Your task to perform on an android device: change the clock display to digital Image 0: 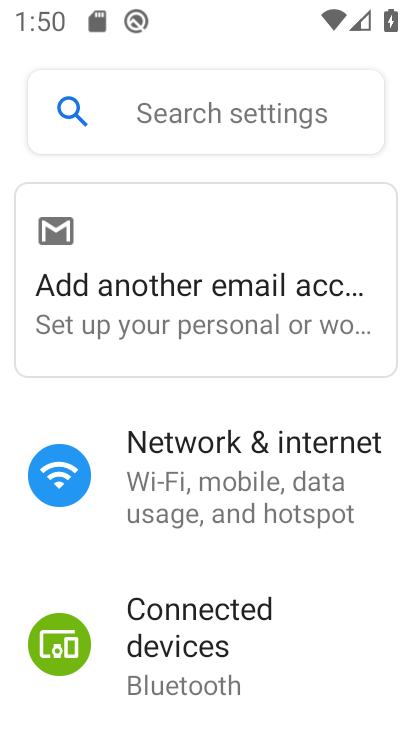
Step 0: press home button
Your task to perform on an android device: change the clock display to digital Image 1: 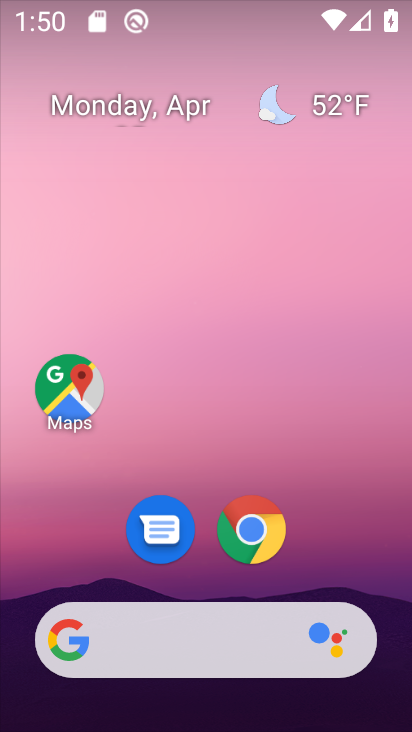
Step 1: drag from (391, 598) to (356, 198)
Your task to perform on an android device: change the clock display to digital Image 2: 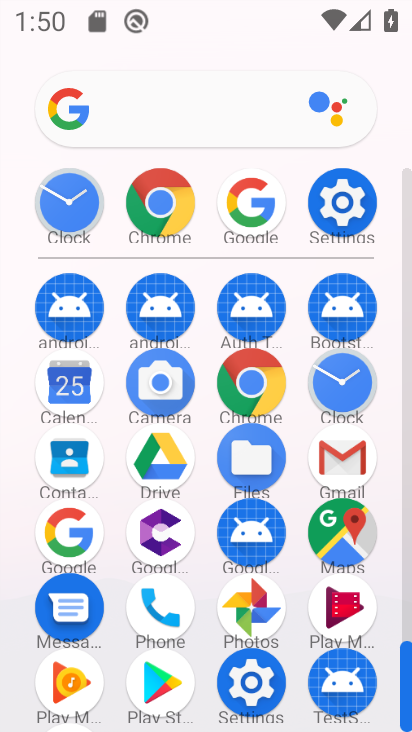
Step 2: click (328, 398)
Your task to perform on an android device: change the clock display to digital Image 3: 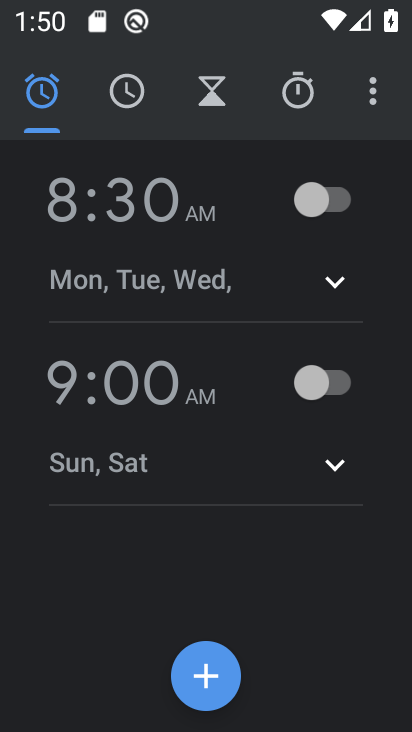
Step 3: click (125, 99)
Your task to perform on an android device: change the clock display to digital Image 4: 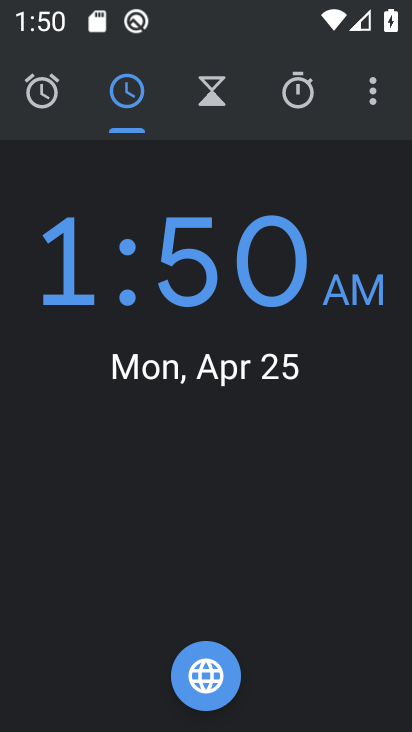
Step 4: click (368, 88)
Your task to perform on an android device: change the clock display to digital Image 5: 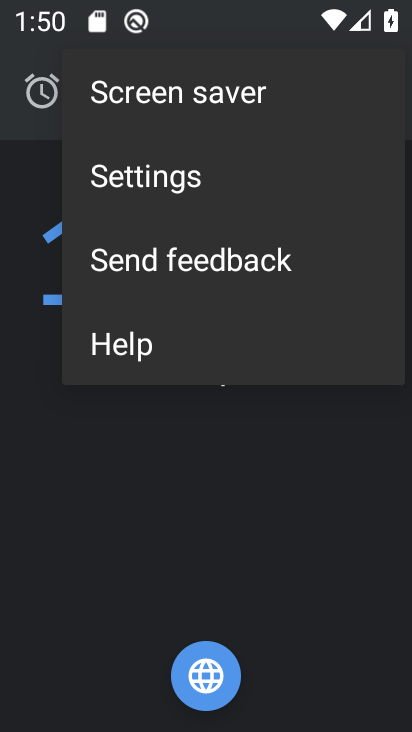
Step 5: click (139, 176)
Your task to perform on an android device: change the clock display to digital Image 6: 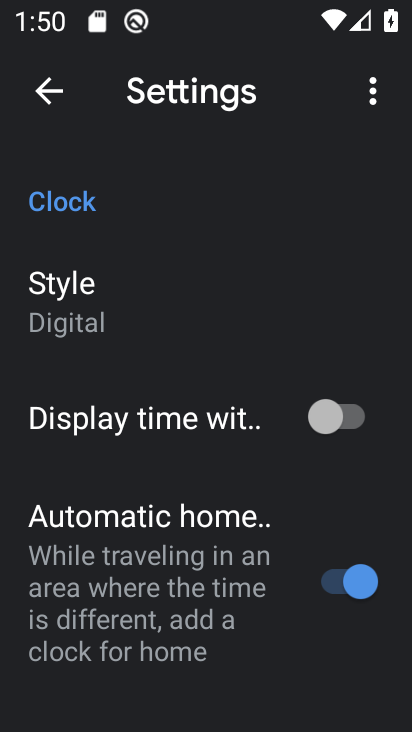
Step 6: drag from (205, 488) to (204, 367)
Your task to perform on an android device: change the clock display to digital Image 7: 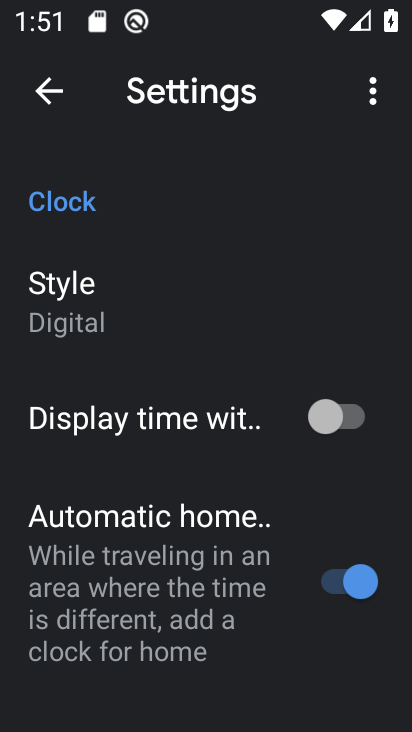
Step 7: click (48, 302)
Your task to perform on an android device: change the clock display to digital Image 8: 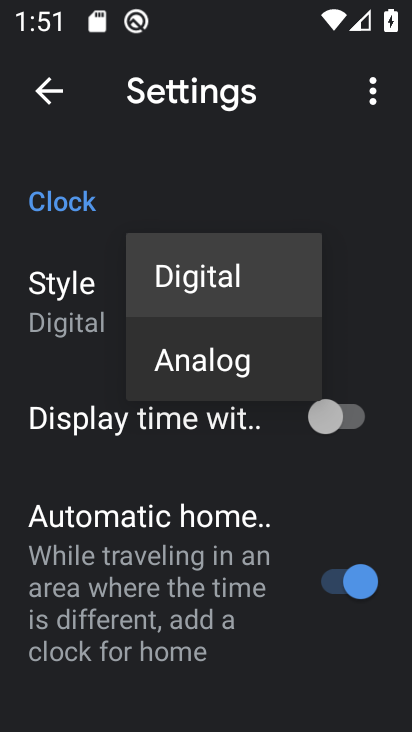
Step 8: click (166, 364)
Your task to perform on an android device: change the clock display to digital Image 9: 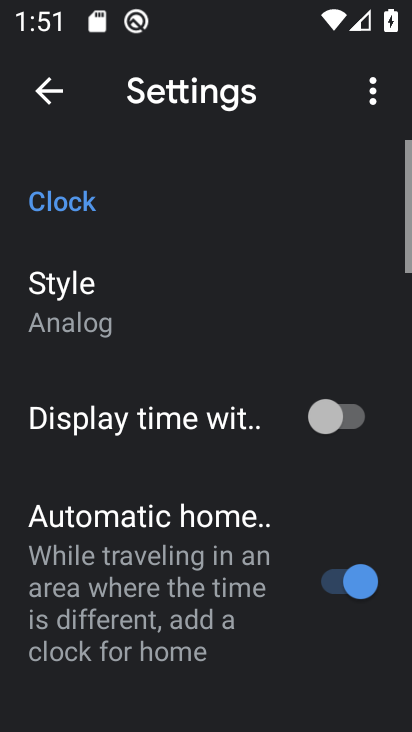
Step 9: task complete